Your task to perform on an android device: turn on translation in the chrome app Image 0: 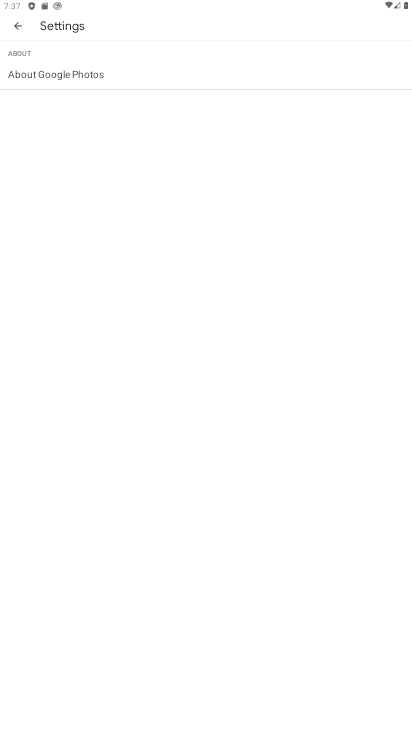
Step 0: press back button
Your task to perform on an android device: turn on translation in the chrome app Image 1: 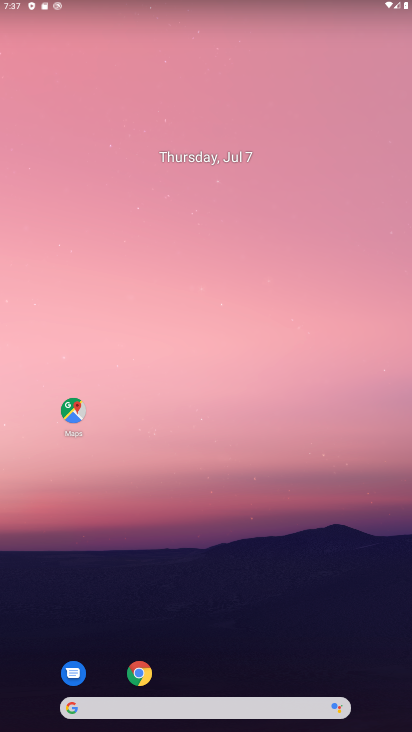
Step 1: drag from (170, 640) to (235, 17)
Your task to perform on an android device: turn on translation in the chrome app Image 2: 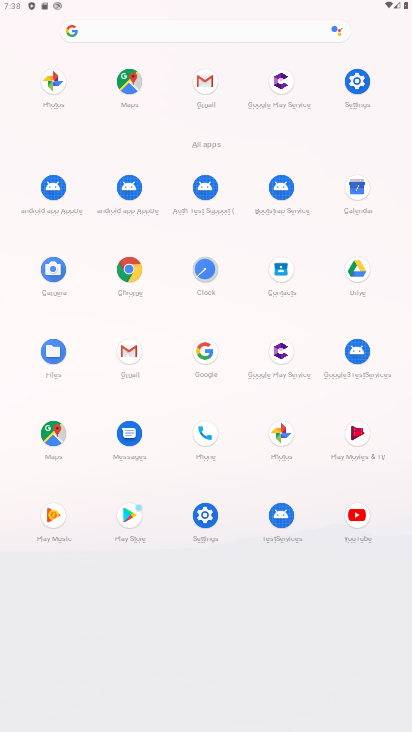
Step 2: click (125, 281)
Your task to perform on an android device: turn on translation in the chrome app Image 3: 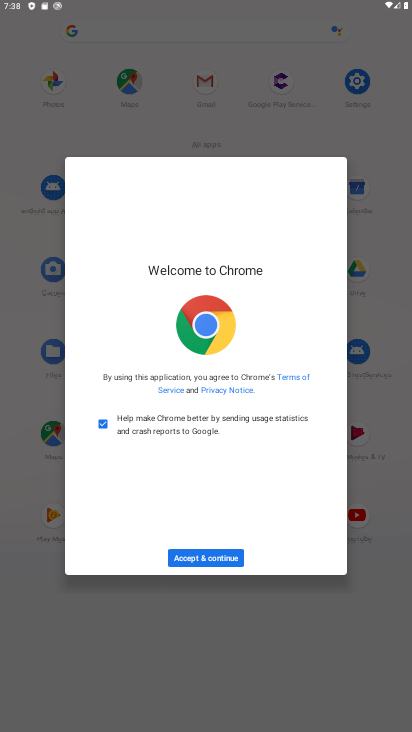
Step 3: click (211, 556)
Your task to perform on an android device: turn on translation in the chrome app Image 4: 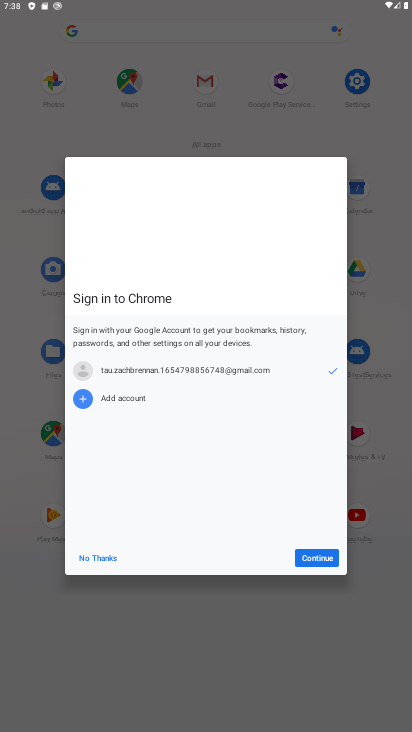
Step 4: click (326, 556)
Your task to perform on an android device: turn on translation in the chrome app Image 5: 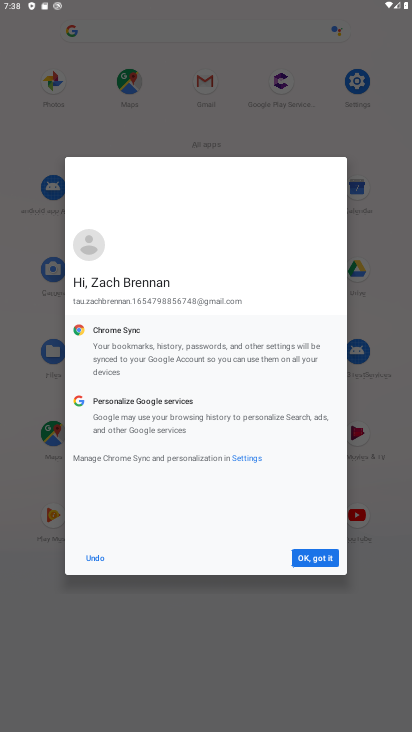
Step 5: click (326, 556)
Your task to perform on an android device: turn on translation in the chrome app Image 6: 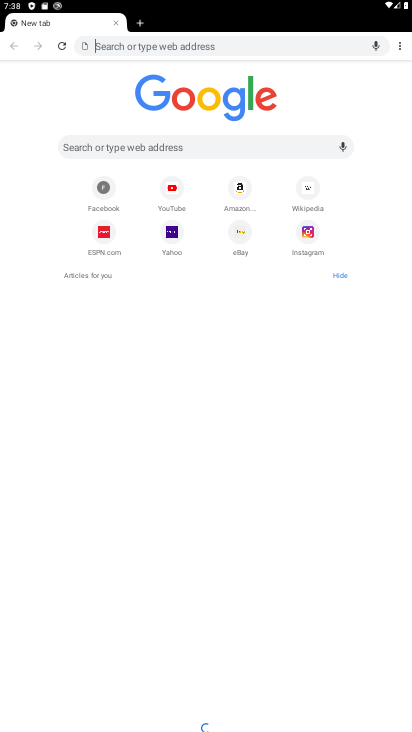
Step 6: click (402, 46)
Your task to perform on an android device: turn on translation in the chrome app Image 7: 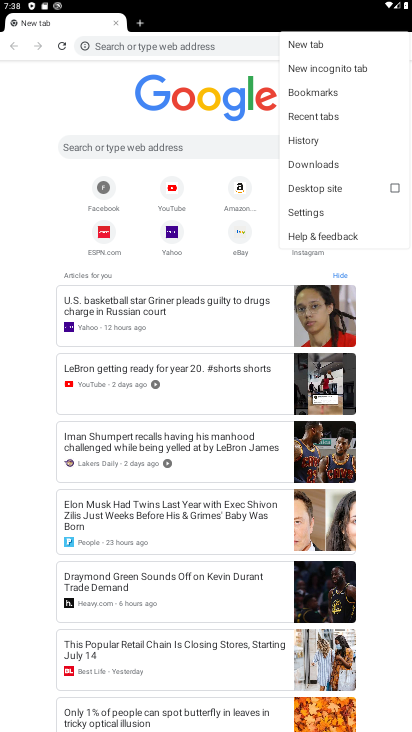
Step 7: click (314, 210)
Your task to perform on an android device: turn on translation in the chrome app Image 8: 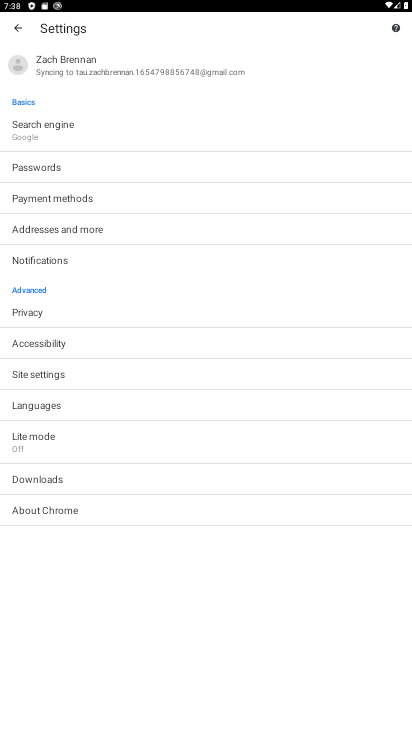
Step 8: click (38, 407)
Your task to perform on an android device: turn on translation in the chrome app Image 9: 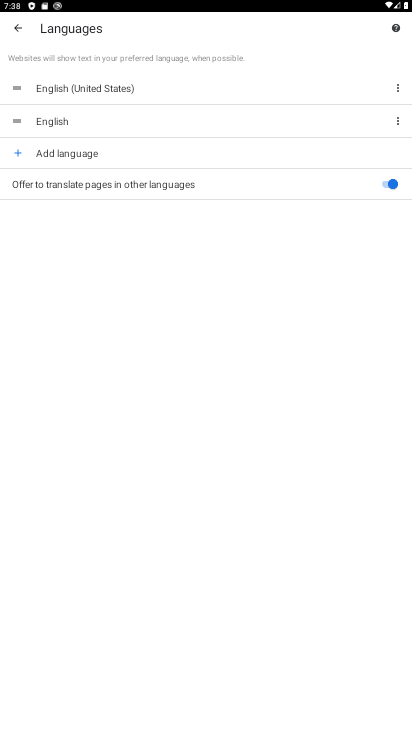
Step 9: task complete